Your task to perform on an android device: add a label to a message in the gmail app Image 0: 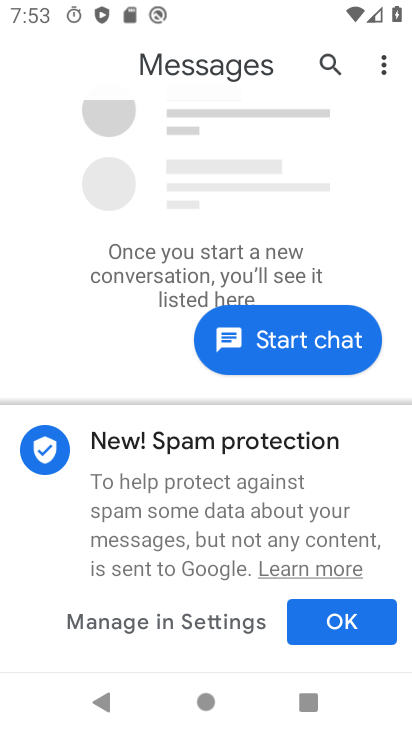
Step 0: press home button
Your task to perform on an android device: add a label to a message in the gmail app Image 1: 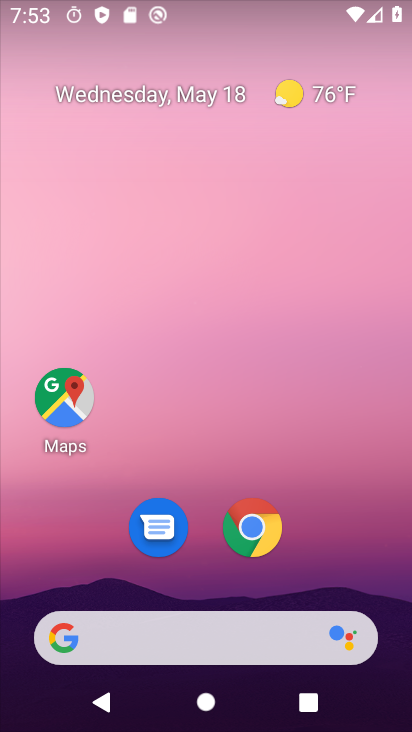
Step 1: drag from (388, 654) to (374, 112)
Your task to perform on an android device: add a label to a message in the gmail app Image 2: 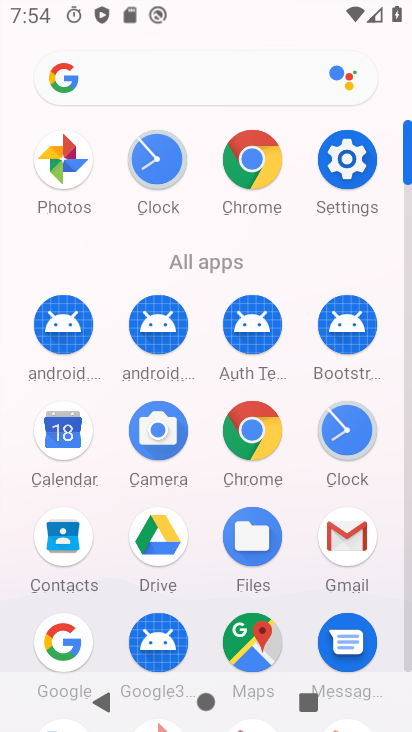
Step 2: click (350, 529)
Your task to perform on an android device: add a label to a message in the gmail app Image 3: 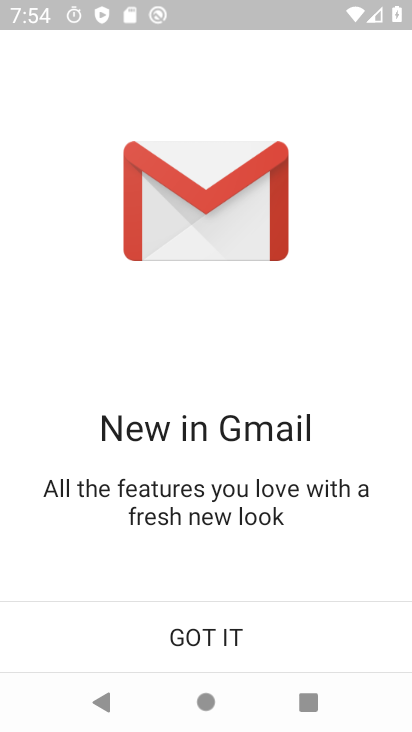
Step 3: click (224, 626)
Your task to perform on an android device: add a label to a message in the gmail app Image 4: 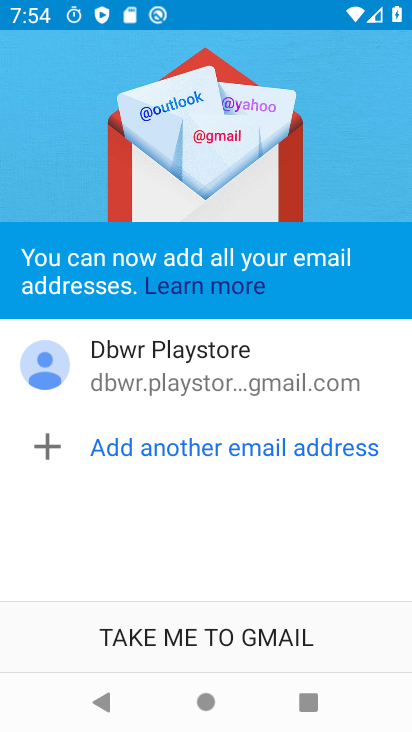
Step 4: click (224, 626)
Your task to perform on an android device: add a label to a message in the gmail app Image 5: 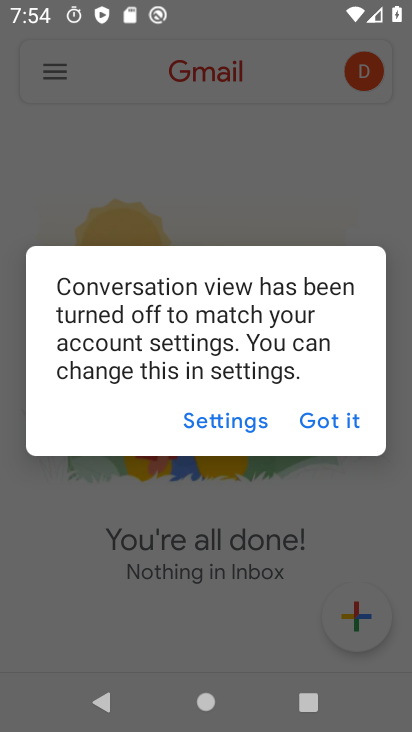
Step 5: click (321, 410)
Your task to perform on an android device: add a label to a message in the gmail app Image 6: 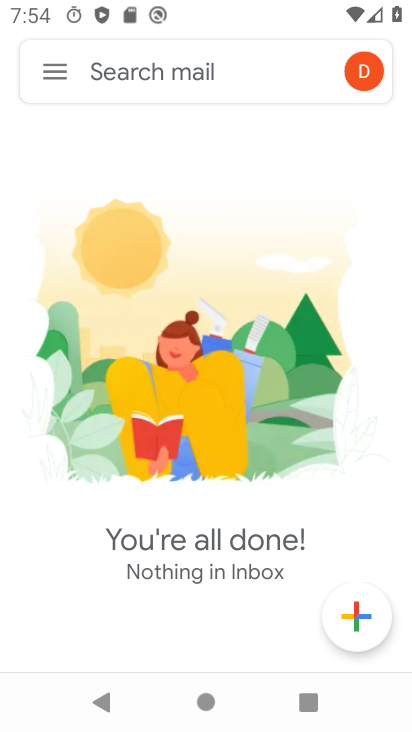
Step 6: click (58, 63)
Your task to perform on an android device: add a label to a message in the gmail app Image 7: 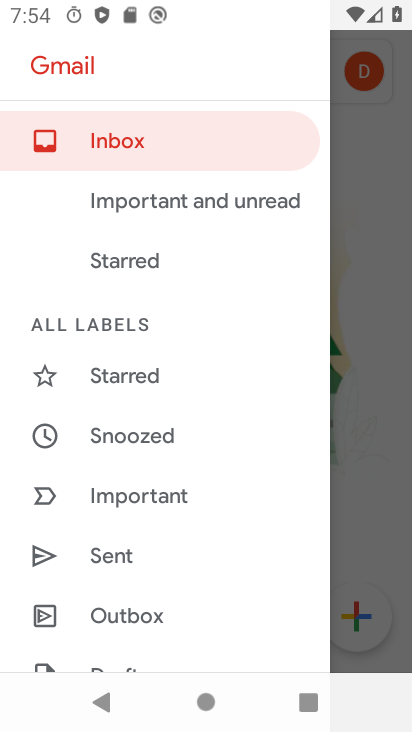
Step 7: click (91, 135)
Your task to perform on an android device: add a label to a message in the gmail app Image 8: 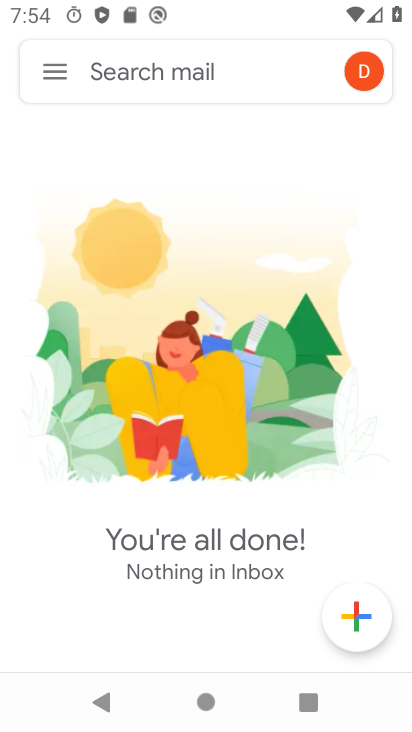
Step 8: task complete